Your task to perform on an android device: see sites visited before in the chrome app Image 0: 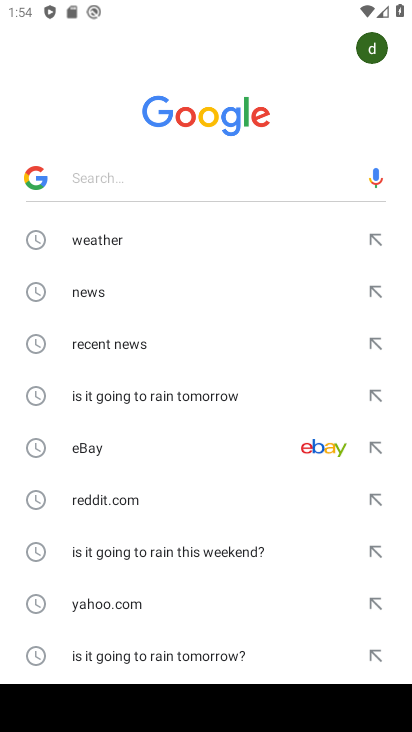
Step 0: press home button
Your task to perform on an android device: see sites visited before in the chrome app Image 1: 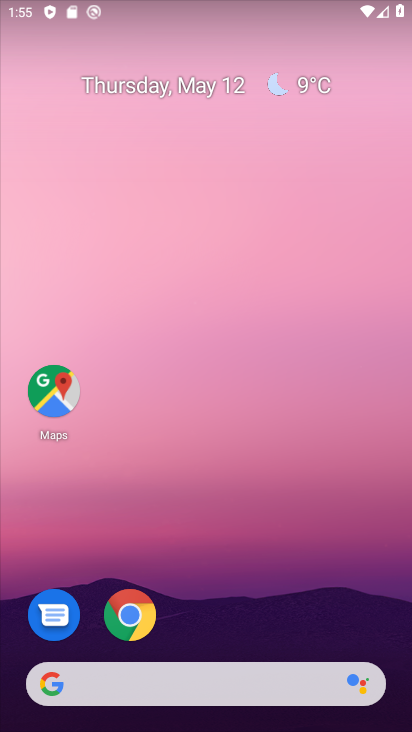
Step 1: click (137, 634)
Your task to perform on an android device: see sites visited before in the chrome app Image 2: 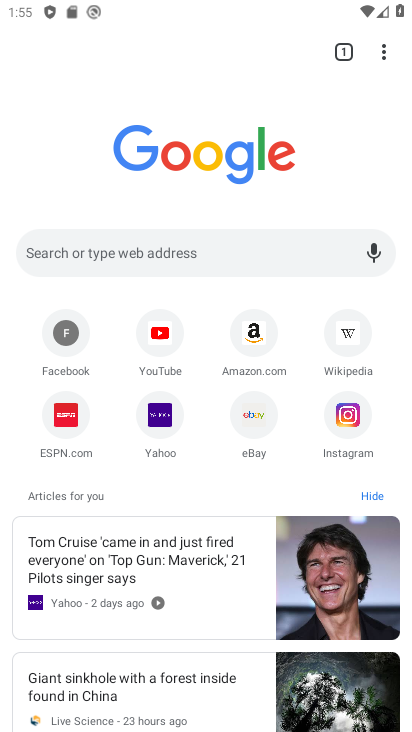
Step 2: task complete